Your task to perform on an android device: open wifi settings Image 0: 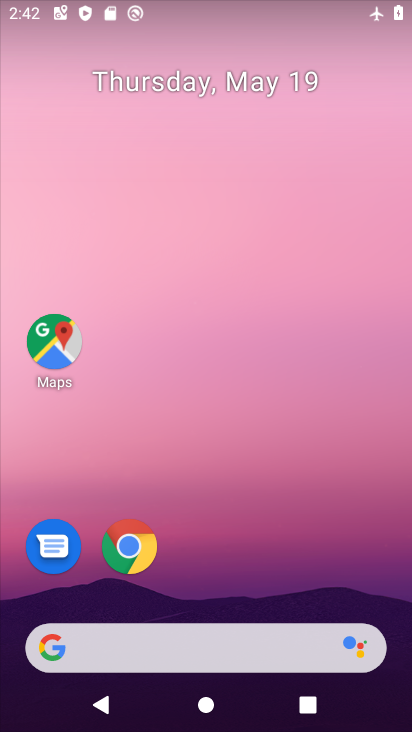
Step 0: drag from (264, 577) to (226, 66)
Your task to perform on an android device: open wifi settings Image 1: 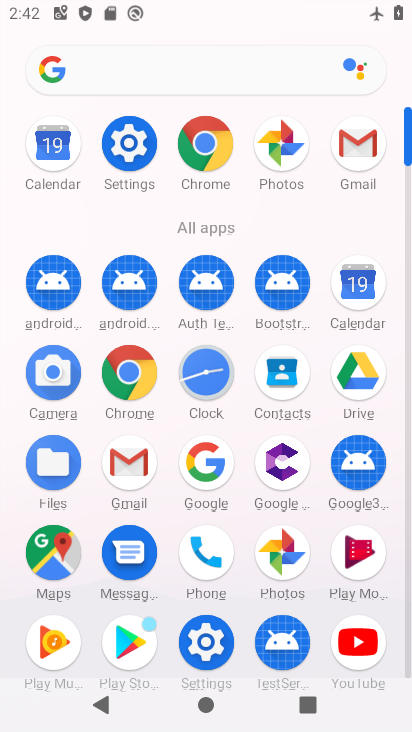
Step 1: click (203, 641)
Your task to perform on an android device: open wifi settings Image 2: 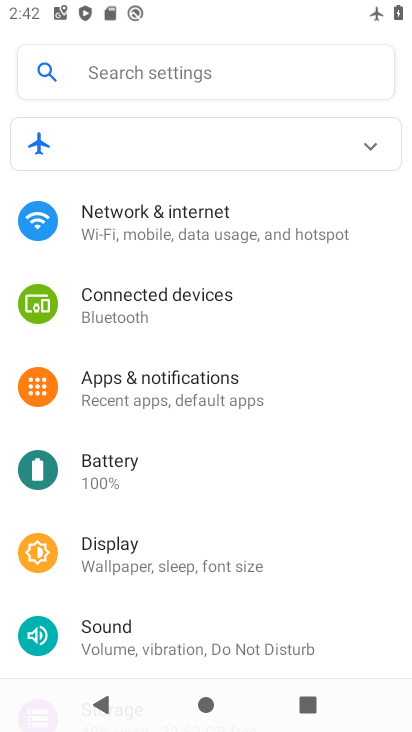
Step 2: click (131, 233)
Your task to perform on an android device: open wifi settings Image 3: 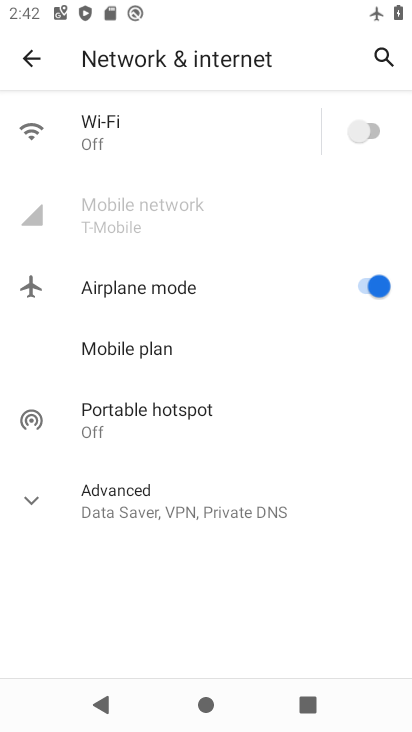
Step 3: click (82, 128)
Your task to perform on an android device: open wifi settings Image 4: 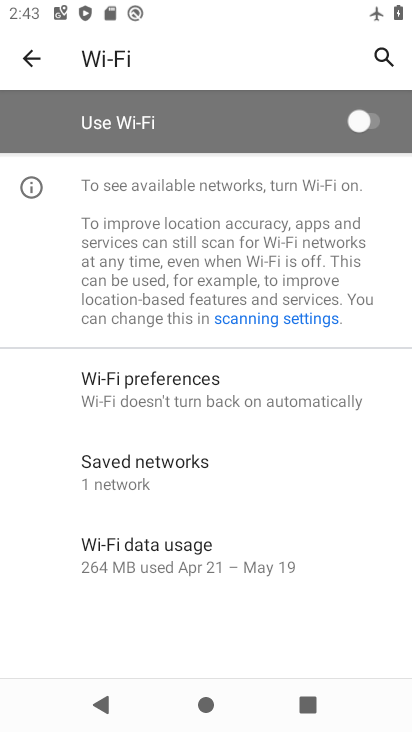
Step 4: task complete